Your task to perform on an android device: move a message to another label in the gmail app Image 0: 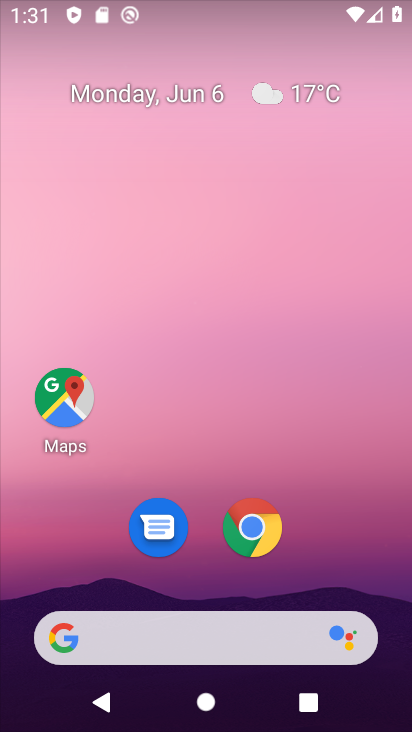
Step 0: drag from (231, 723) to (229, 0)
Your task to perform on an android device: move a message to another label in the gmail app Image 1: 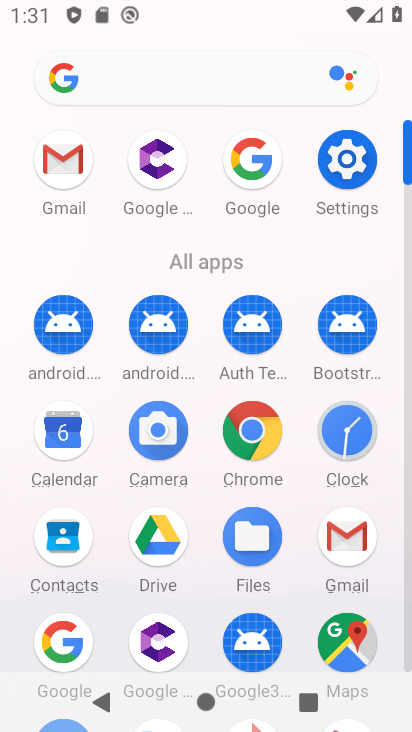
Step 1: click (356, 527)
Your task to perform on an android device: move a message to another label in the gmail app Image 2: 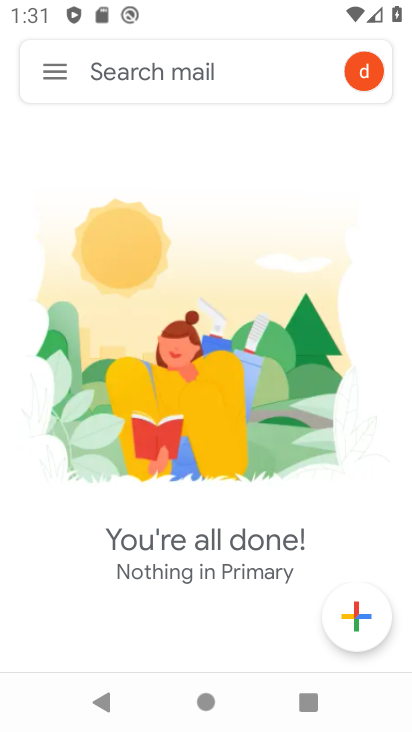
Step 2: click (48, 76)
Your task to perform on an android device: move a message to another label in the gmail app Image 3: 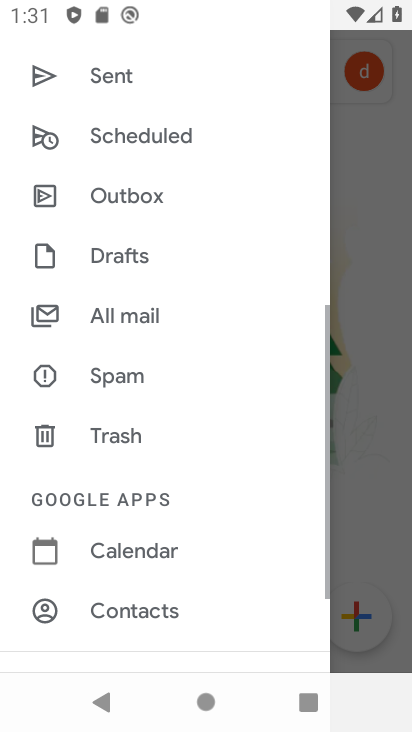
Step 3: drag from (118, 94) to (139, 483)
Your task to perform on an android device: move a message to another label in the gmail app Image 4: 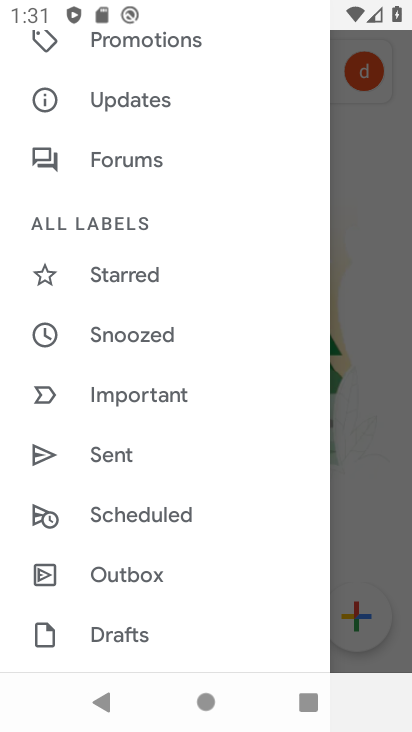
Step 4: drag from (151, 66) to (160, 578)
Your task to perform on an android device: move a message to another label in the gmail app Image 5: 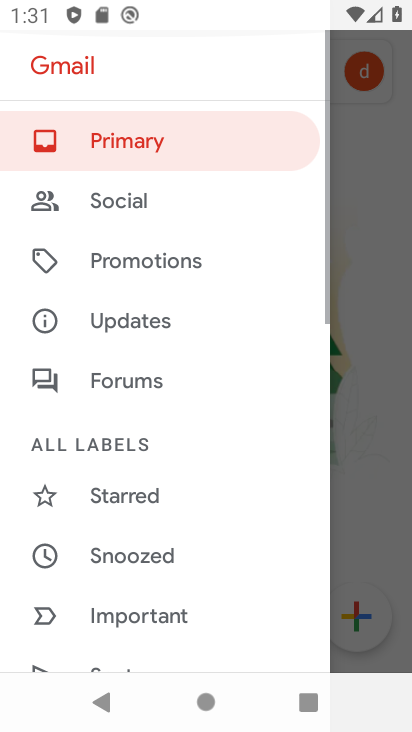
Step 5: click (142, 136)
Your task to perform on an android device: move a message to another label in the gmail app Image 6: 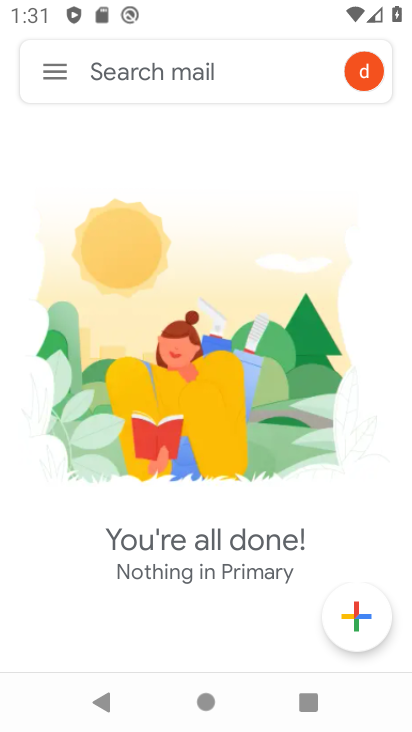
Step 6: task complete